Your task to perform on an android device: Open Chrome and go to the settings page Image 0: 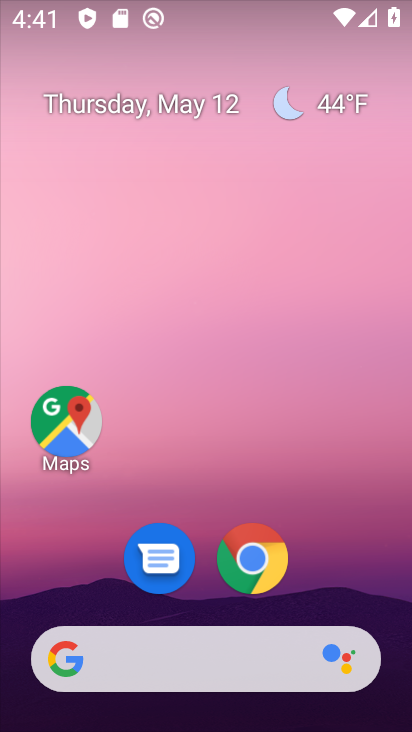
Step 0: drag from (371, 564) to (249, 0)
Your task to perform on an android device: Open Chrome and go to the settings page Image 1: 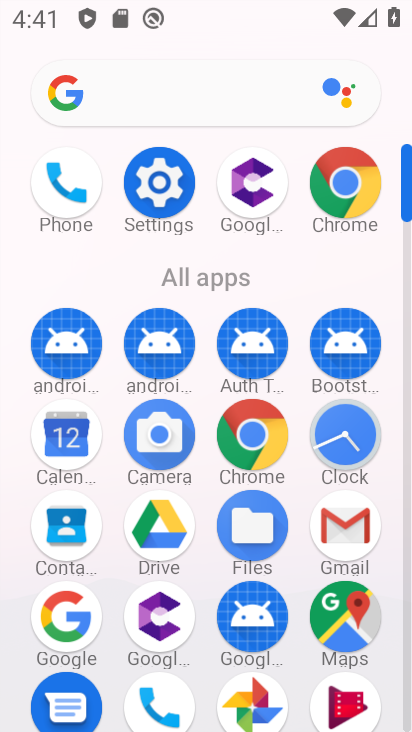
Step 1: drag from (8, 627) to (9, 324)
Your task to perform on an android device: Open Chrome and go to the settings page Image 2: 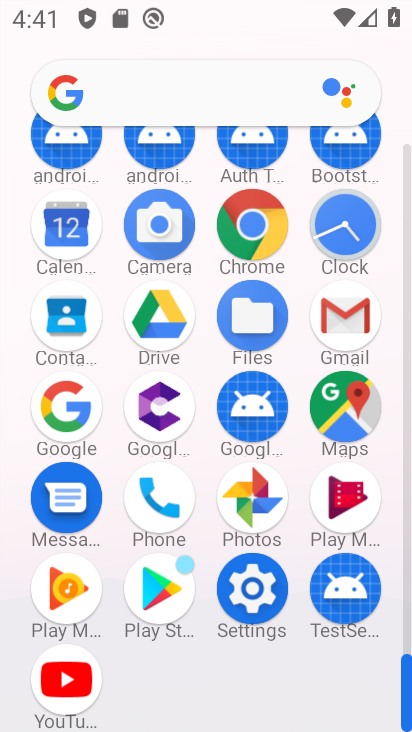
Step 2: click (252, 221)
Your task to perform on an android device: Open Chrome and go to the settings page Image 3: 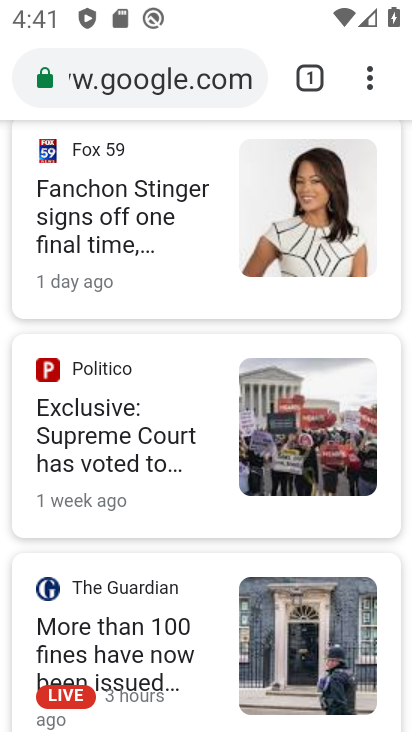
Step 3: task complete